Your task to perform on an android device: turn on javascript in the chrome app Image 0: 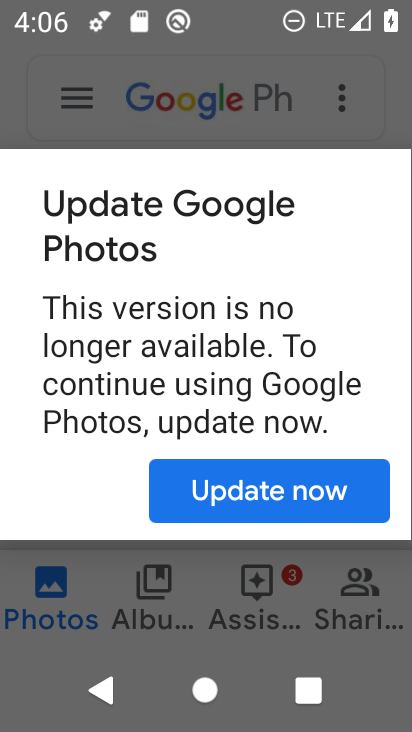
Step 0: press home button
Your task to perform on an android device: turn on javascript in the chrome app Image 1: 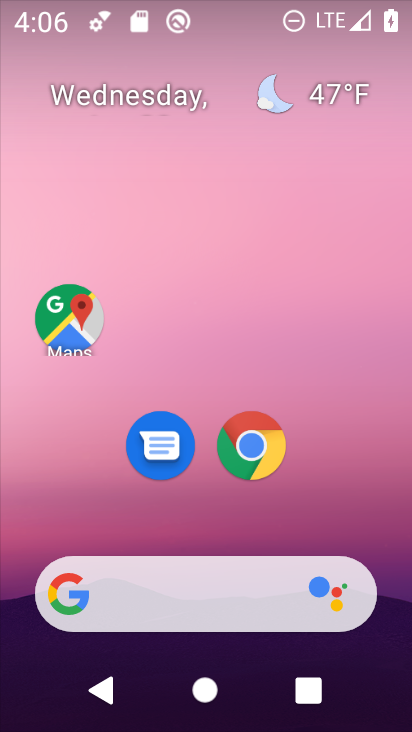
Step 1: click (247, 442)
Your task to perform on an android device: turn on javascript in the chrome app Image 2: 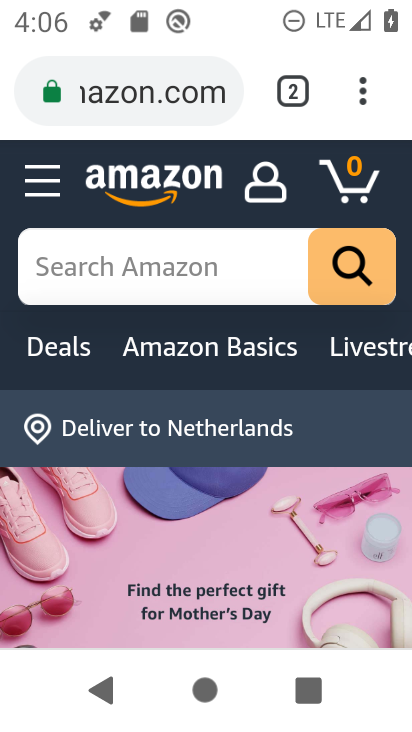
Step 2: click (363, 91)
Your task to perform on an android device: turn on javascript in the chrome app Image 3: 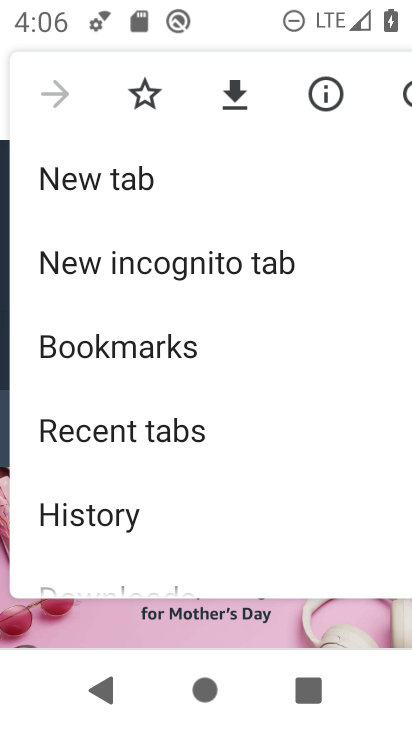
Step 3: drag from (148, 474) to (236, 300)
Your task to perform on an android device: turn on javascript in the chrome app Image 4: 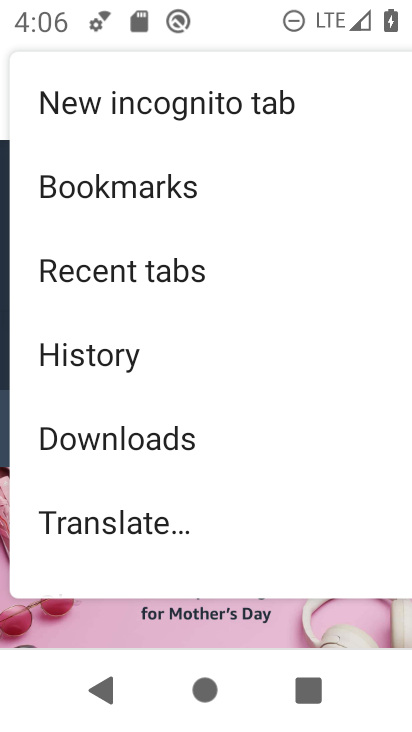
Step 4: drag from (231, 500) to (261, 390)
Your task to perform on an android device: turn on javascript in the chrome app Image 5: 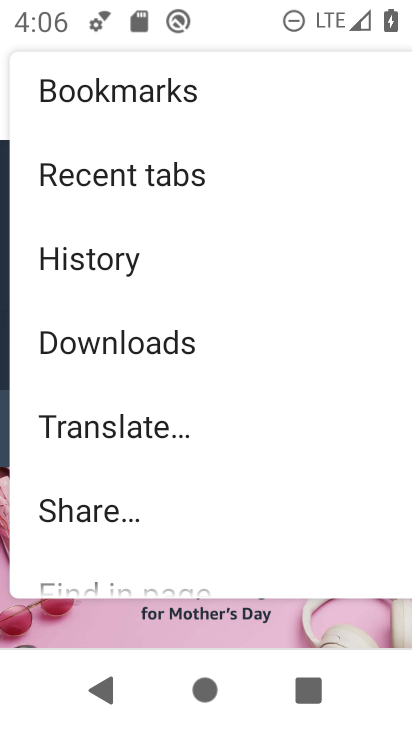
Step 5: drag from (151, 519) to (212, 361)
Your task to perform on an android device: turn on javascript in the chrome app Image 6: 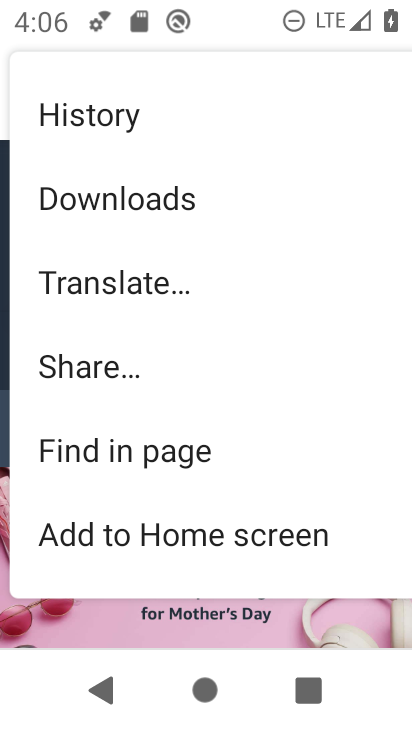
Step 6: drag from (199, 499) to (250, 385)
Your task to perform on an android device: turn on javascript in the chrome app Image 7: 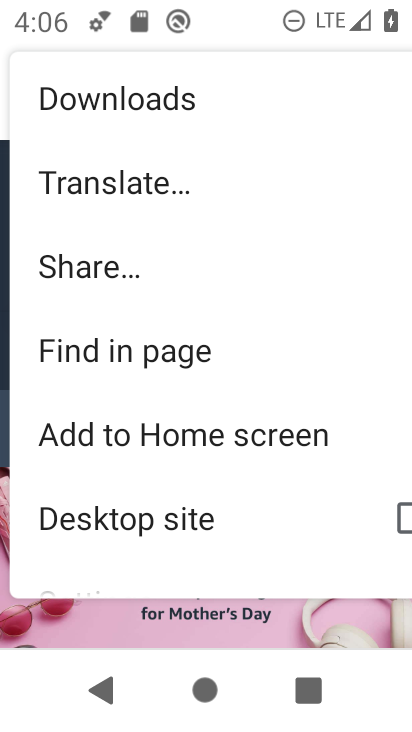
Step 7: drag from (192, 493) to (283, 334)
Your task to perform on an android device: turn on javascript in the chrome app Image 8: 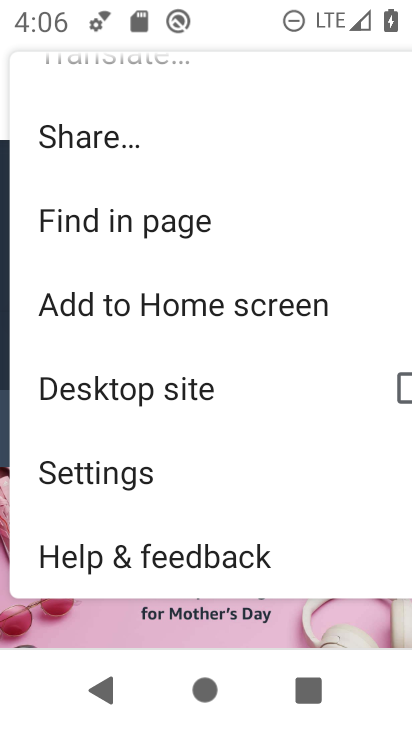
Step 8: click (137, 479)
Your task to perform on an android device: turn on javascript in the chrome app Image 9: 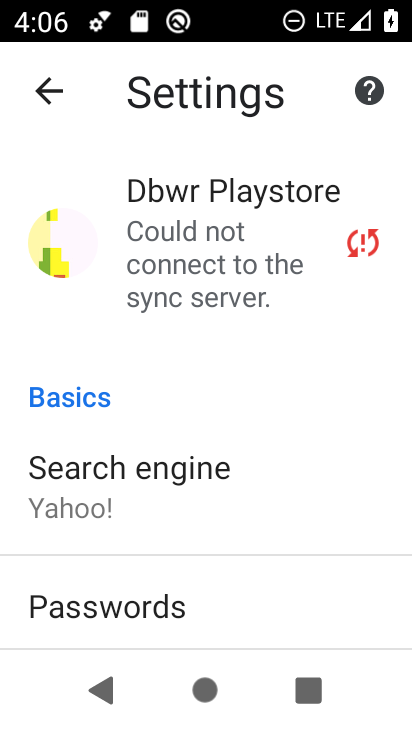
Step 9: drag from (200, 574) to (221, 407)
Your task to perform on an android device: turn on javascript in the chrome app Image 10: 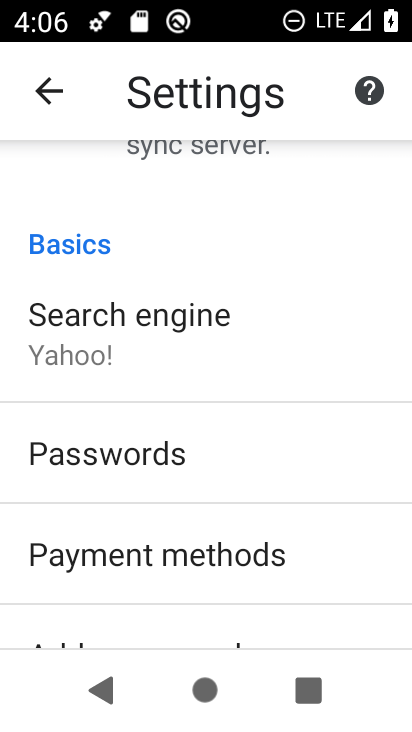
Step 10: drag from (215, 518) to (290, 379)
Your task to perform on an android device: turn on javascript in the chrome app Image 11: 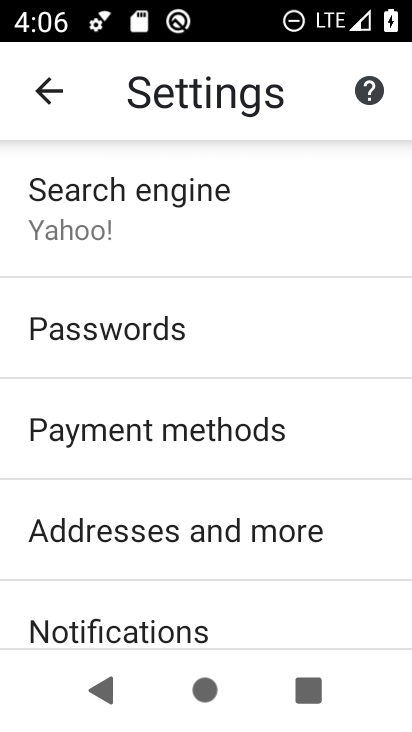
Step 11: drag from (231, 564) to (281, 376)
Your task to perform on an android device: turn on javascript in the chrome app Image 12: 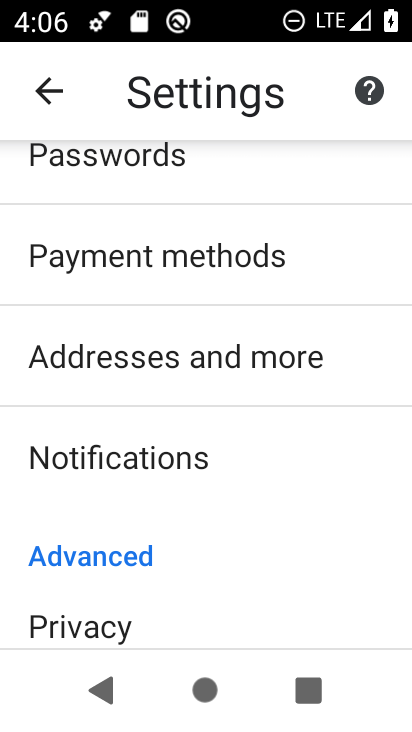
Step 12: drag from (232, 546) to (309, 399)
Your task to perform on an android device: turn on javascript in the chrome app Image 13: 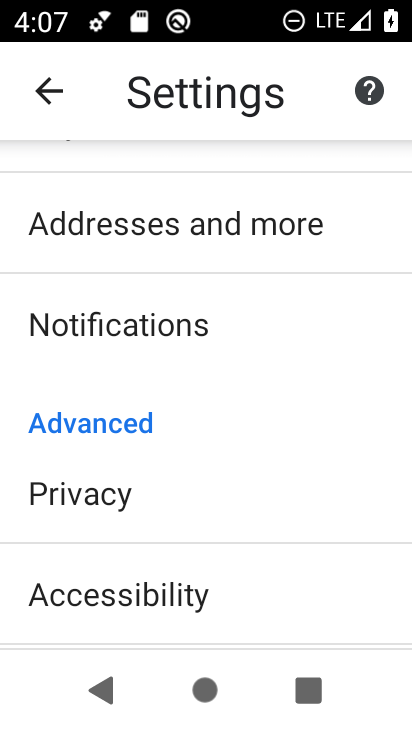
Step 13: drag from (260, 568) to (297, 438)
Your task to perform on an android device: turn on javascript in the chrome app Image 14: 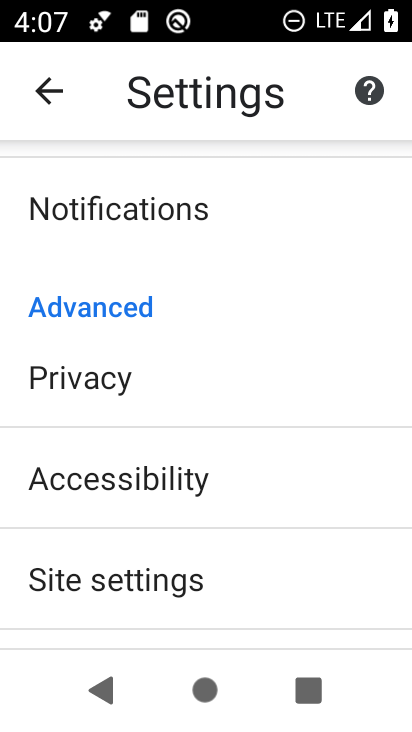
Step 14: click (188, 583)
Your task to perform on an android device: turn on javascript in the chrome app Image 15: 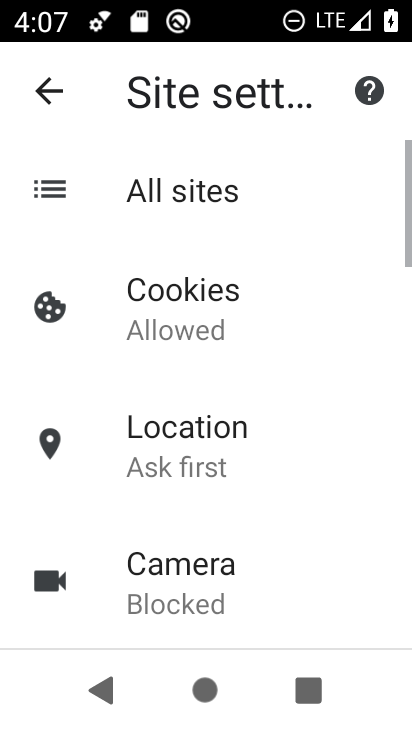
Step 15: drag from (250, 581) to (317, 372)
Your task to perform on an android device: turn on javascript in the chrome app Image 16: 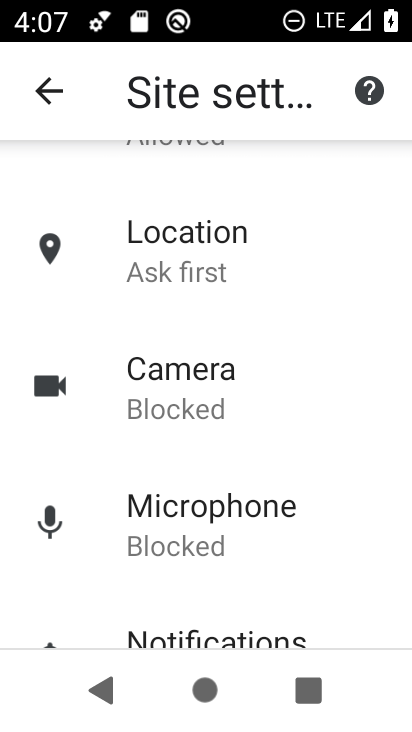
Step 16: drag from (274, 542) to (320, 416)
Your task to perform on an android device: turn on javascript in the chrome app Image 17: 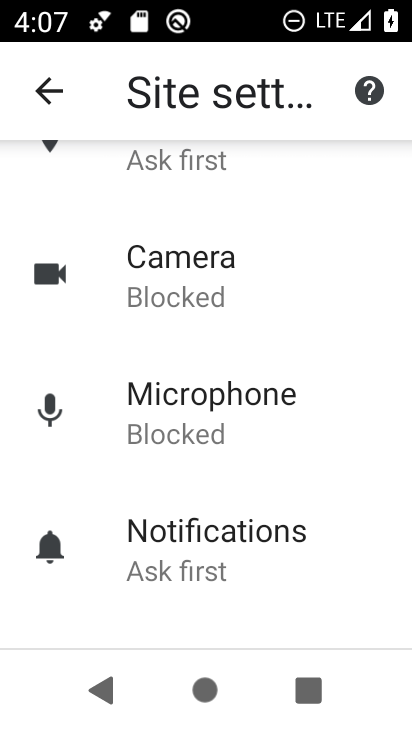
Step 17: drag from (243, 585) to (273, 437)
Your task to perform on an android device: turn on javascript in the chrome app Image 18: 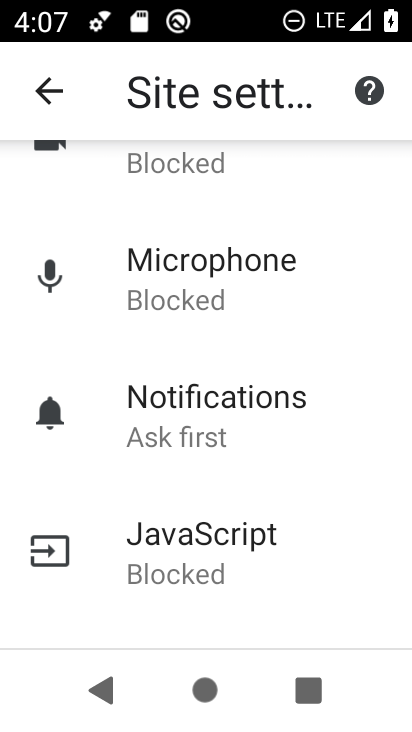
Step 18: click (256, 527)
Your task to perform on an android device: turn on javascript in the chrome app Image 19: 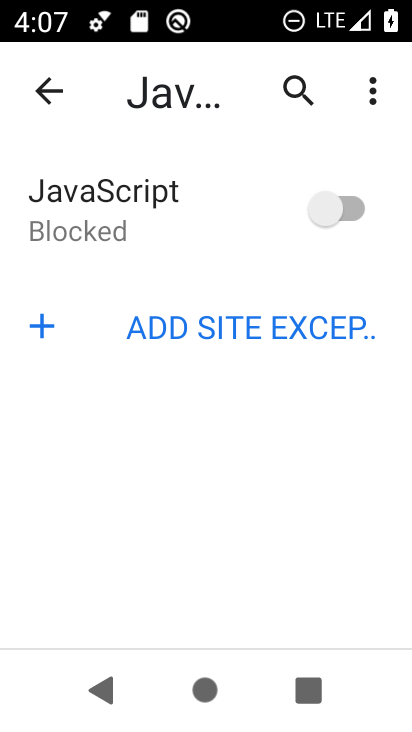
Step 19: click (357, 211)
Your task to perform on an android device: turn on javascript in the chrome app Image 20: 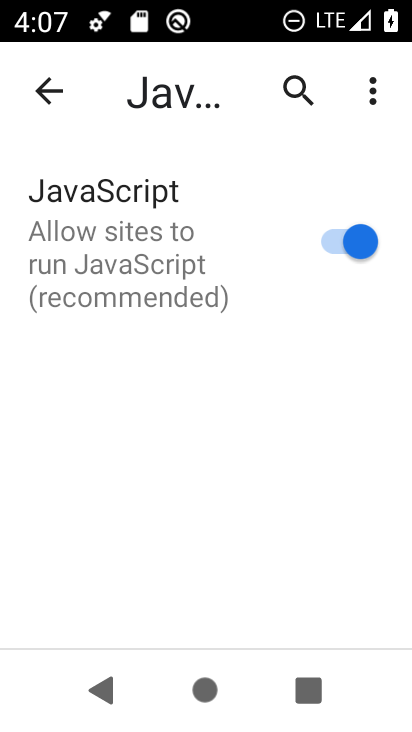
Step 20: task complete